Your task to perform on an android device: turn on wifi Image 0: 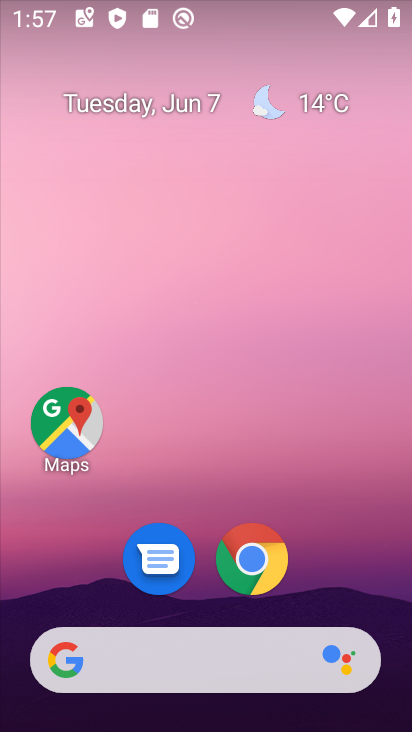
Step 0: drag from (294, 363) to (253, 37)
Your task to perform on an android device: turn on wifi Image 1: 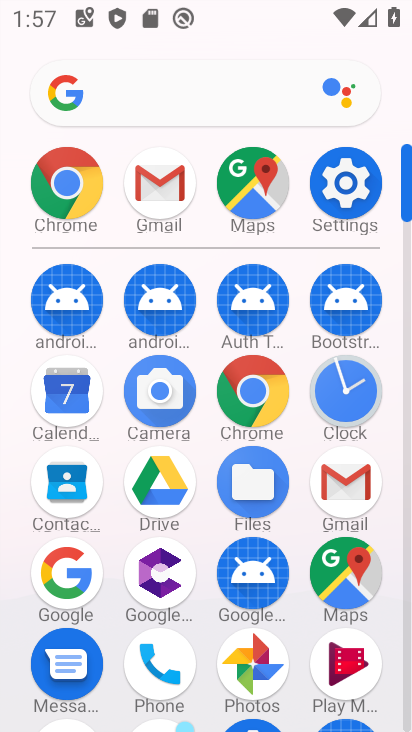
Step 1: click (341, 179)
Your task to perform on an android device: turn on wifi Image 2: 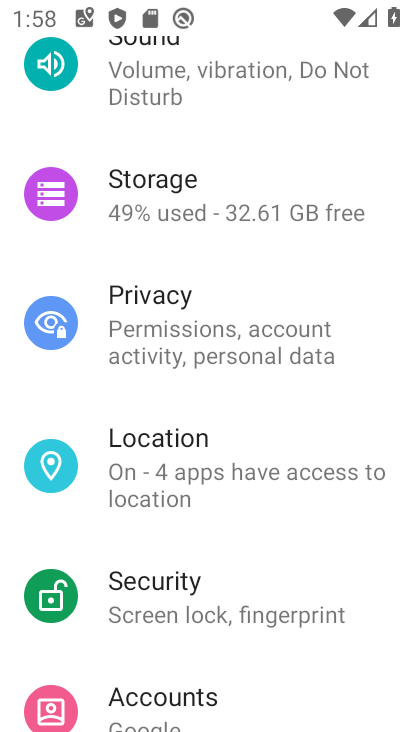
Step 2: drag from (238, 174) to (239, 610)
Your task to perform on an android device: turn on wifi Image 3: 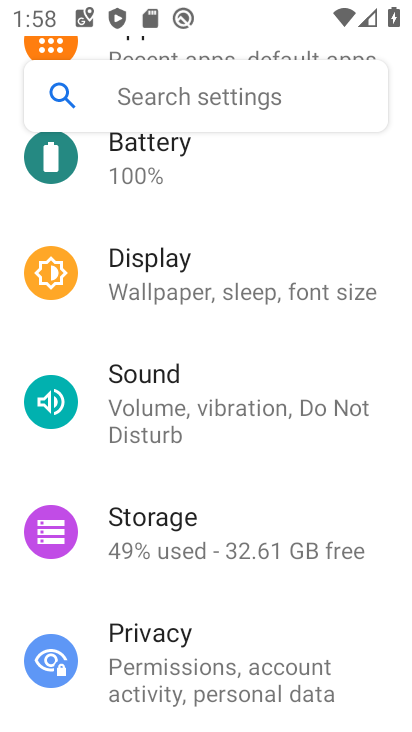
Step 3: drag from (250, 258) to (210, 660)
Your task to perform on an android device: turn on wifi Image 4: 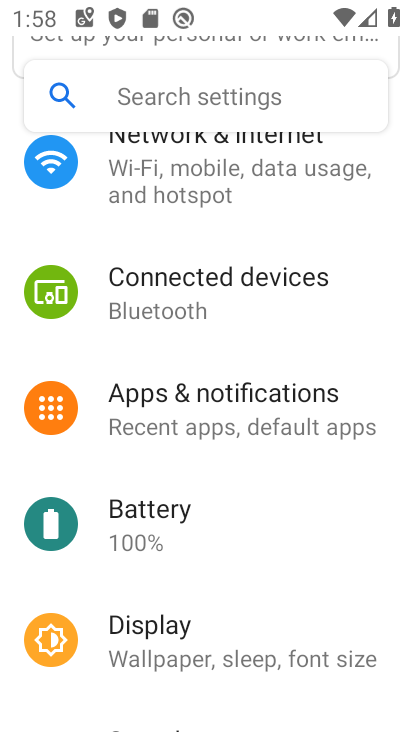
Step 4: drag from (226, 272) to (227, 579)
Your task to perform on an android device: turn on wifi Image 5: 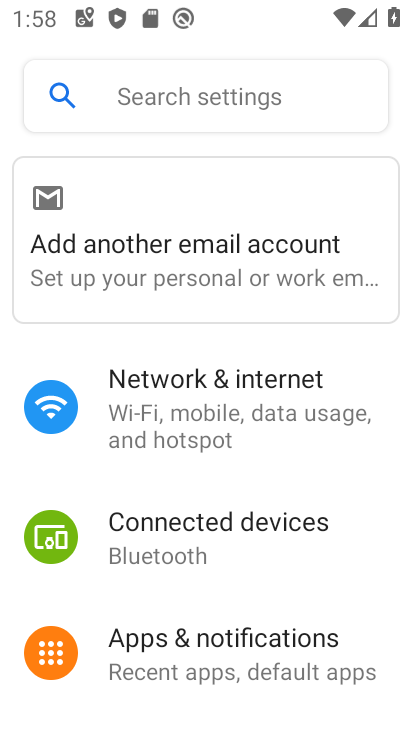
Step 5: click (225, 395)
Your task to perform on an android device: turn on wifi Image 6: 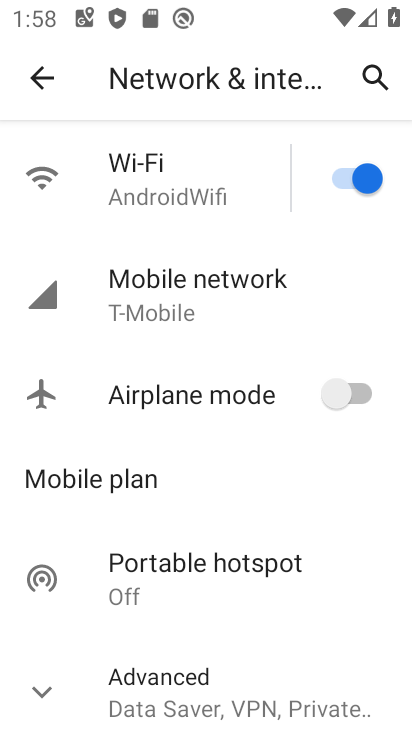
Step 6: click (26, 693)
Your task to perform on an android device: turn on wifi Image 7: 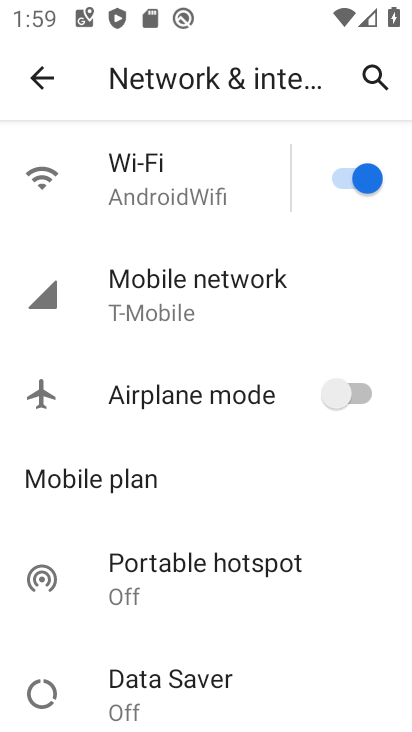
Step 7: task complete